Your task to perform on an android device: Go to sound settings Image 0: 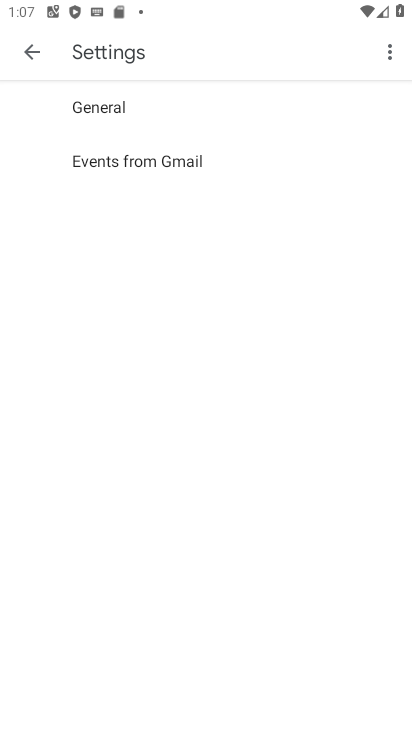
Step 0: press home button
Your task to perform on an android device: Go to sound settings Image 1: 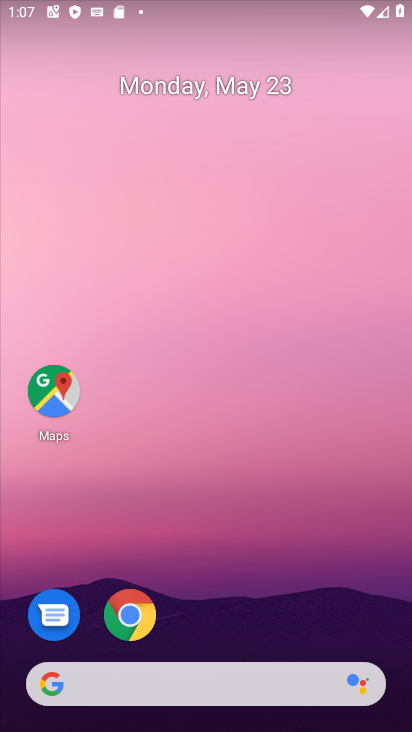
Step 1: drag from (187, 698) to (187, 13)
Your task to perform on an android device: Go to sound settings Image 2: 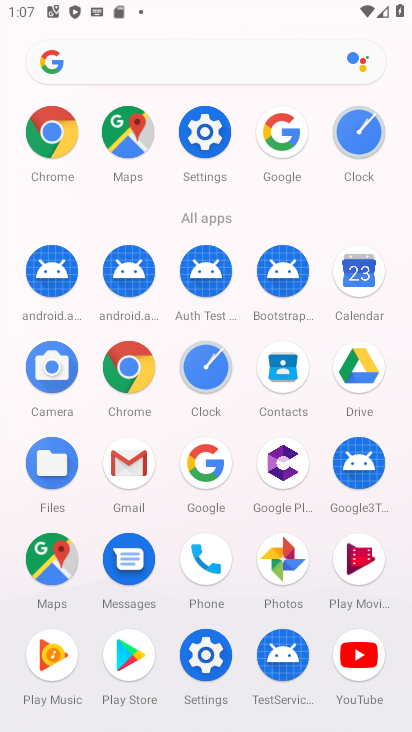
Step 2: click (201, 137)
Your task to perform on an android device: Go to sound settings Image 3: 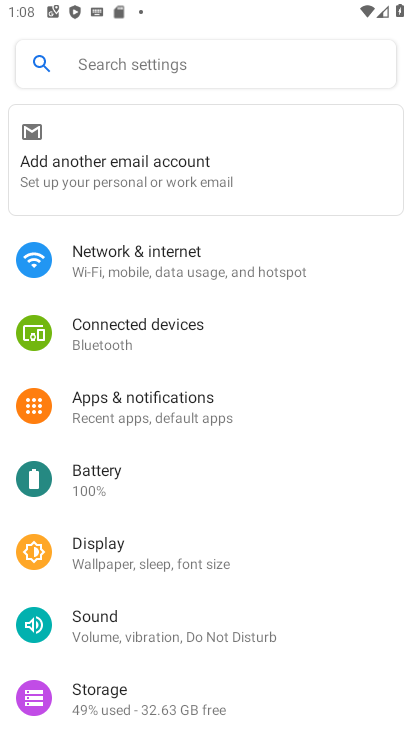
Step 3: click (89, 627)
Your task to perform on an android device: Go to sound settings Image 4: 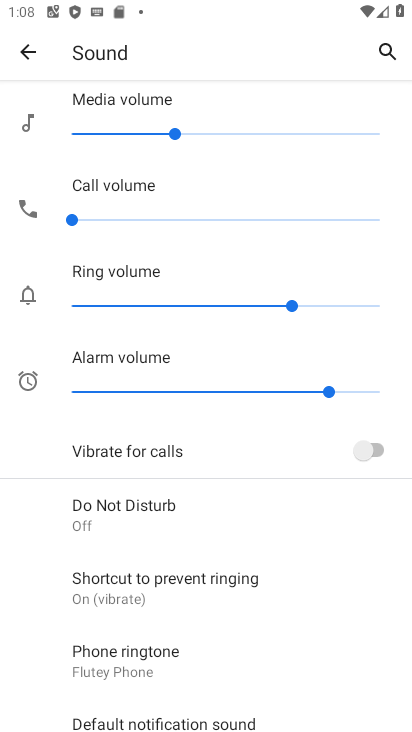
Step 4: task complete